Your task to perform on an android device: change the clock display to analog Image 0: 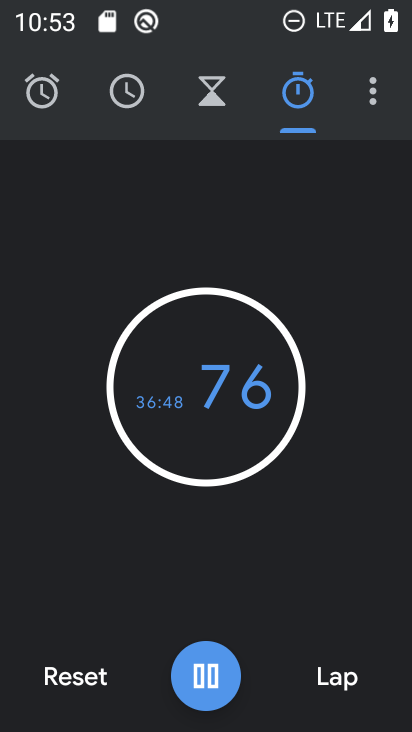
Step 0: press home button
Your task to perform on an android device: change the clock display to analog Image 1: 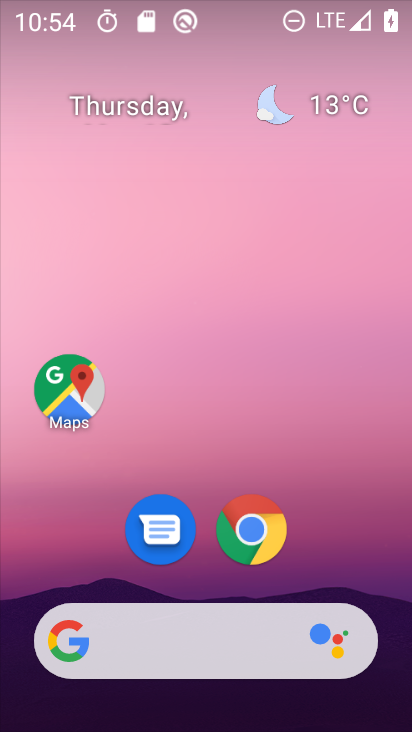
Step 1: drag from (309, 552) to (298, 31)
Your task to perform on an android device: change the clock display to analog Image 2: 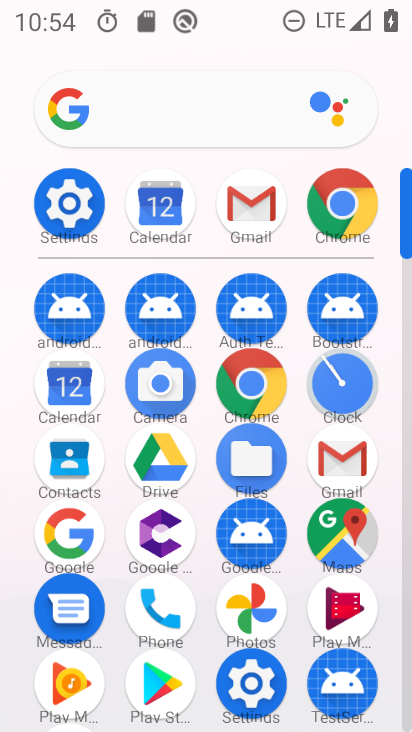
Step 2: click (350, 373)
Your task to perform on an android device: change the clock display to analog Image 3: 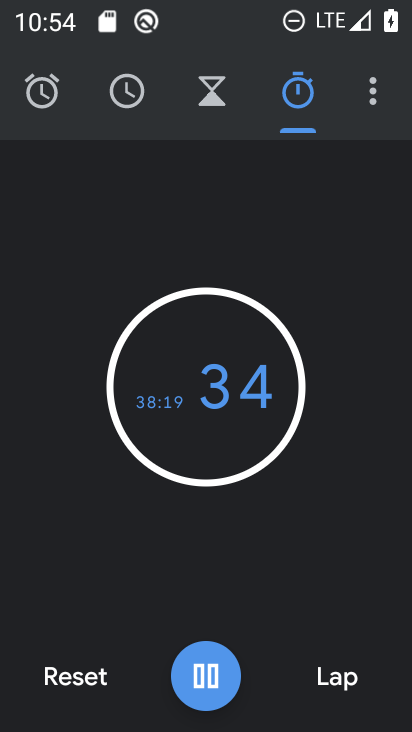
Step 3: click (378, 93)
Your task to perform on an android device: change the clock display to analog Image 4: 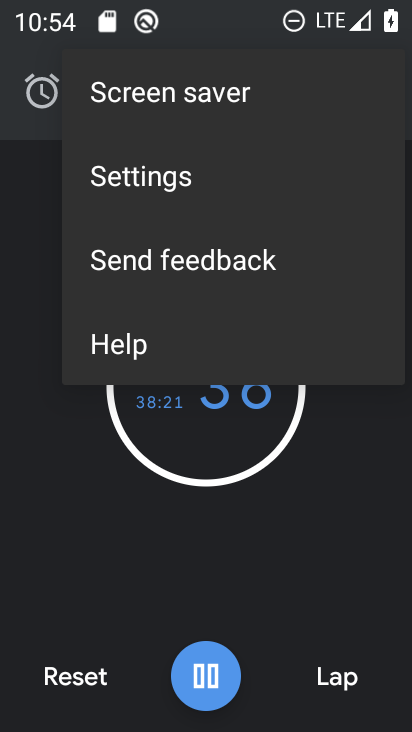
Step 4: click (200, 174)
Your task to perform on an android device: change the clock display to analog Image 5: 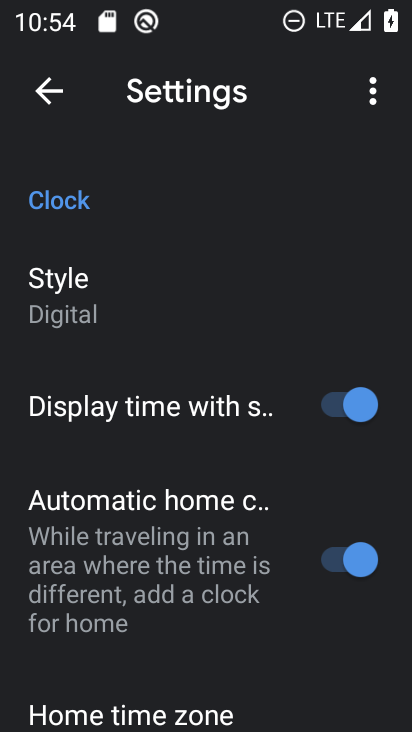
Step 5: click (152, 290)
Your task to perform on an android device: change the clock display to analog Image 6: 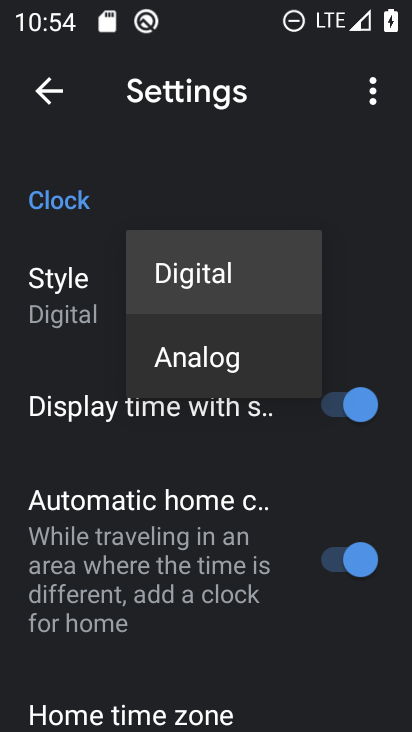
Step 6: click (187, 348)
Your task to perform on an android device: change the clock display to analog Image 7: 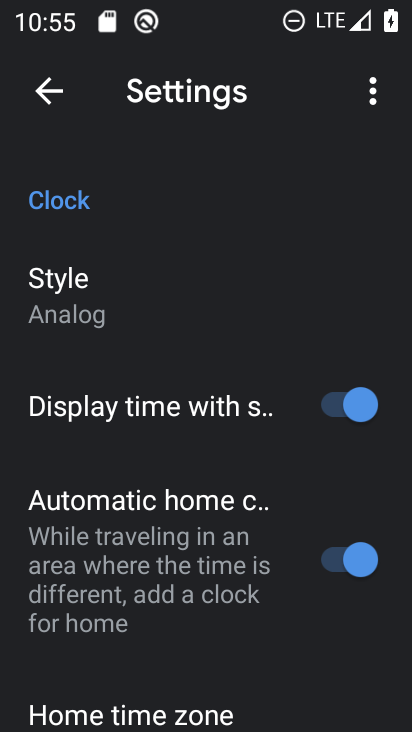
Step 7: task complete